Your task to perform on an android device: Open location settings Image 0: 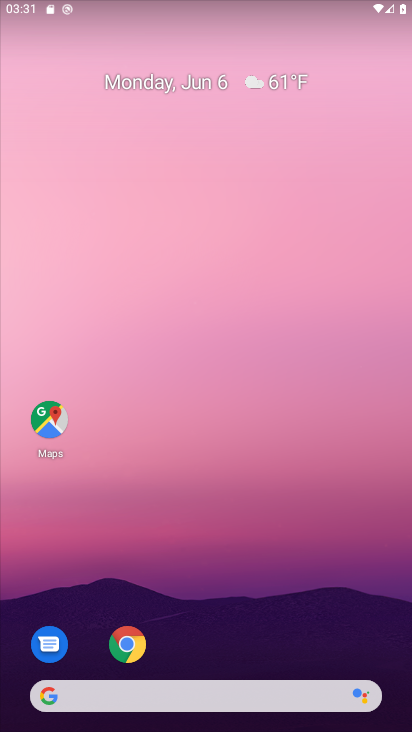
Step 0: drag from (240, 637) to (351, 19)
Your task to perform on an android device: Open location settings Image 1: 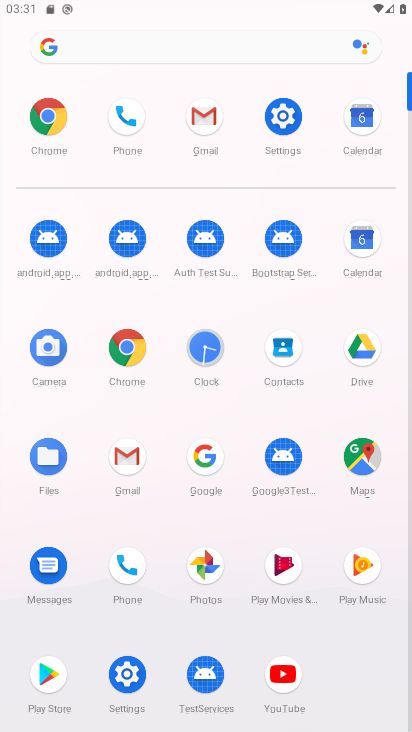
Step 1: click (286, 125)
Your task to perform on an android device: Open location settings Image 2: 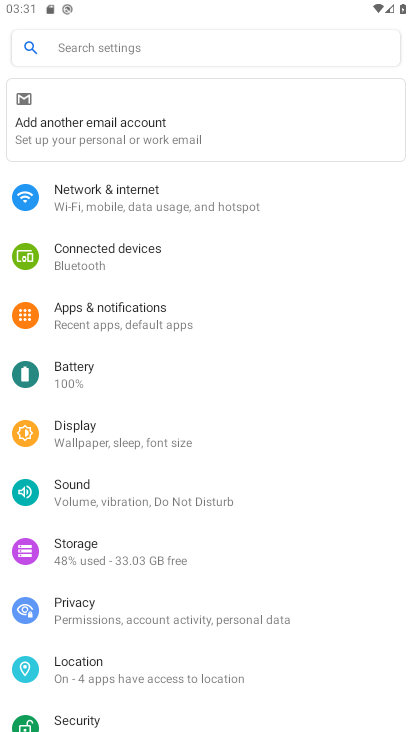
Step 2: drag from (116, 599) to (144, 363)
Your task to perform on an android device: Open location settings Image 3: 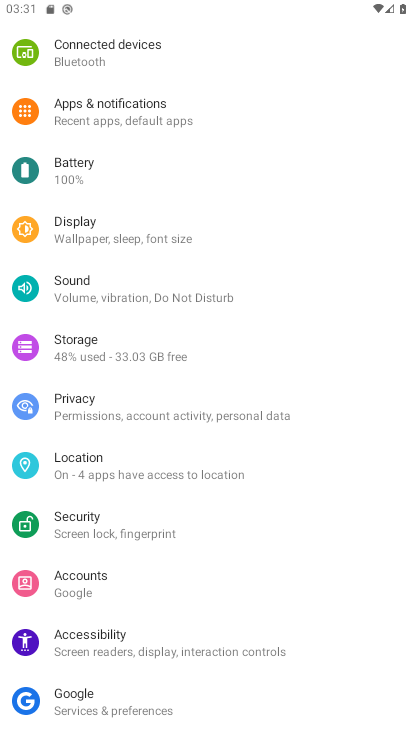
Step 3: click (102, 474)
Your task to perform on an android device: Open location settings Image 4: 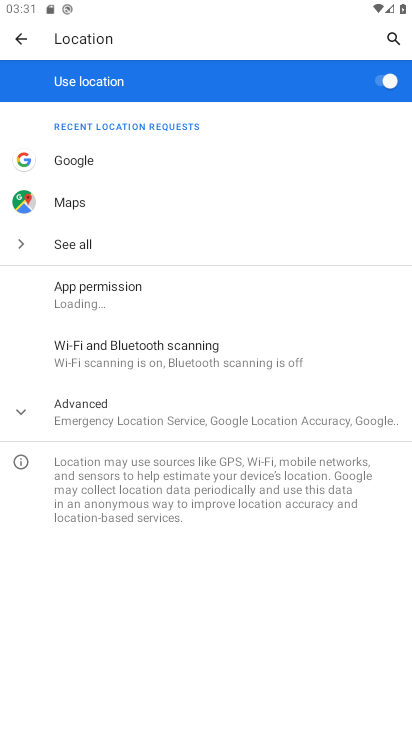
Step 4: task complete